Your task to perform on an android device: find photos in the google photos app Image 0: 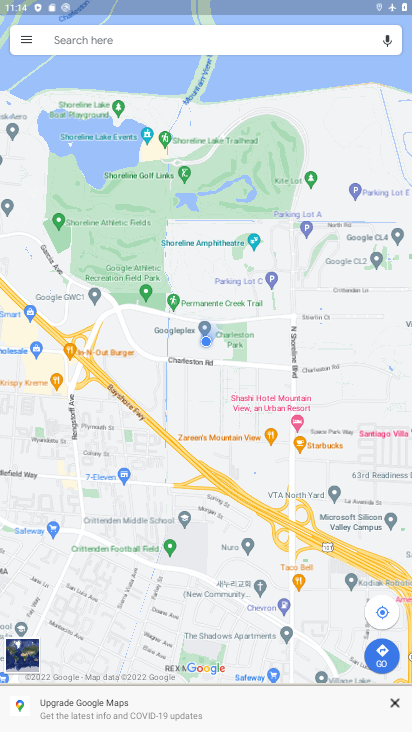
Step 0: press home button
Your task to perform on an android device: find photos in the google photos app Image 1: 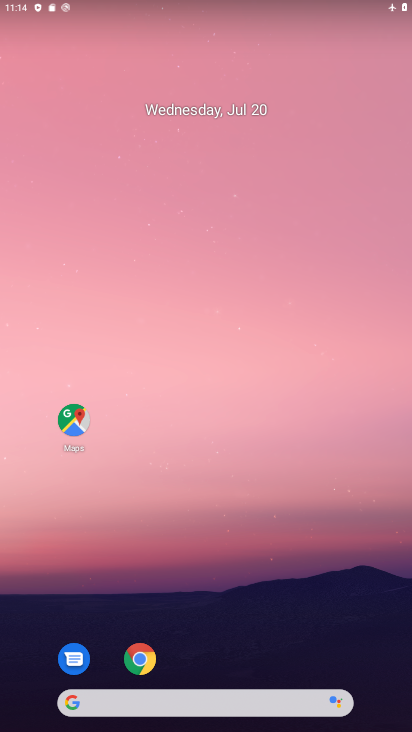
Step 1: drag from (195, 631) to (212, 70)
Your task to perform on an android device: find photos in the google photos app Image 2: 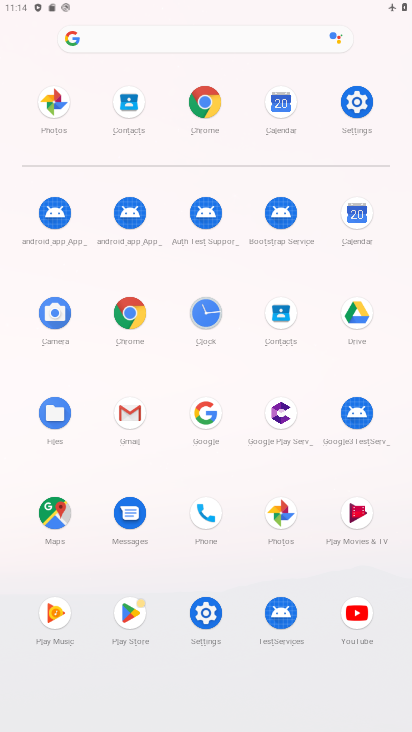
Step 2: click (288, 528)
Your task to perform on an android device: find photos in the google photos app Image 3: 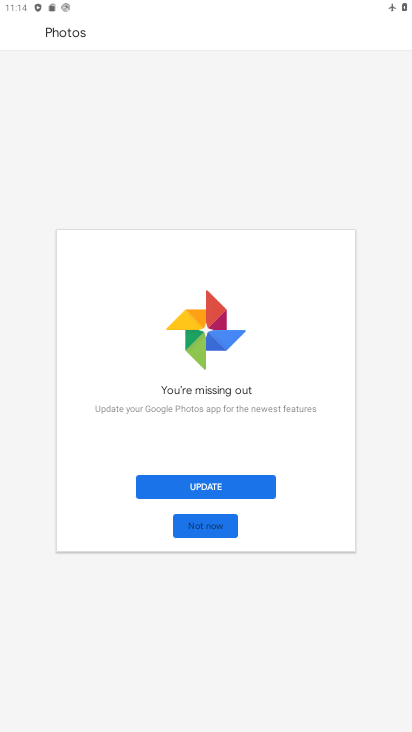
Step 3: click (198, 520)
Your task to perform on an android device: find photos in the google photos app Image 4: 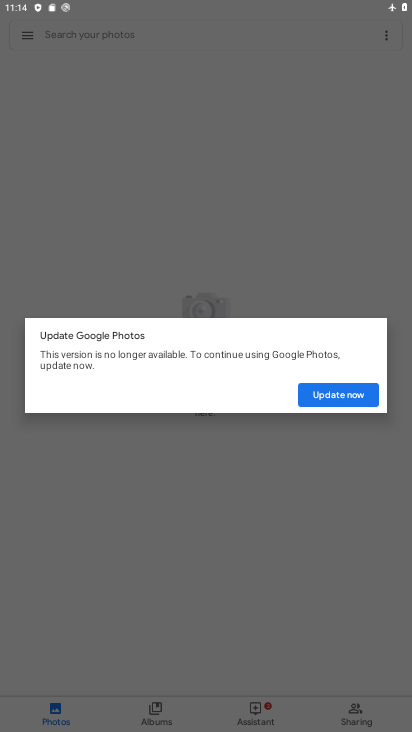
Step 4: click (358, 393)
Your task to perform on an android device: find photos in the google photos app Image 5: 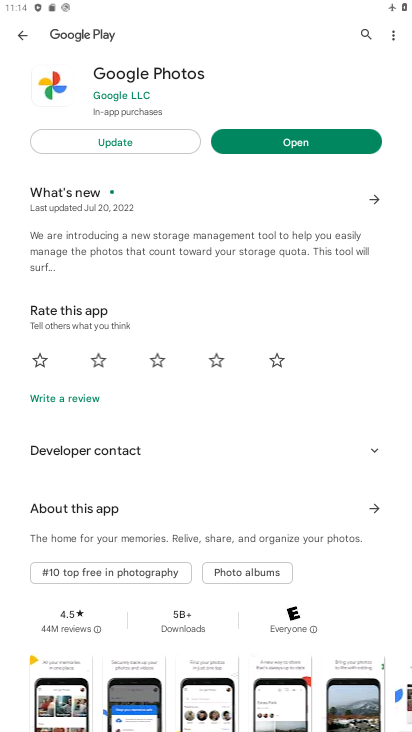
Step 5: click (287, 150)
Your task to perform on an android device: find photos in the google photos app Image 6: 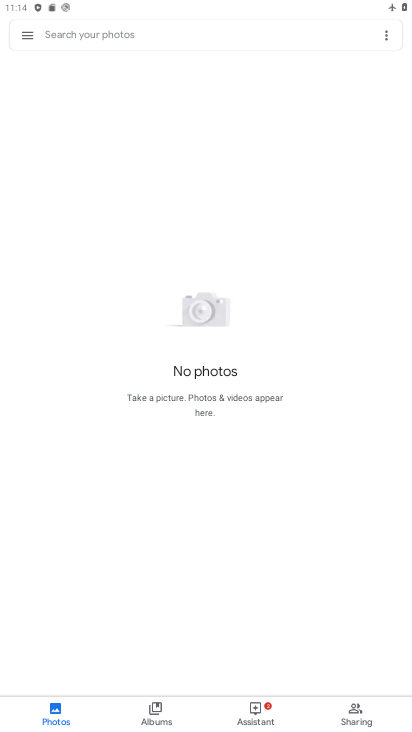
Step 6: click (31, 38)
Your task to perform on an android device: find photos in the google photos app Image 7: 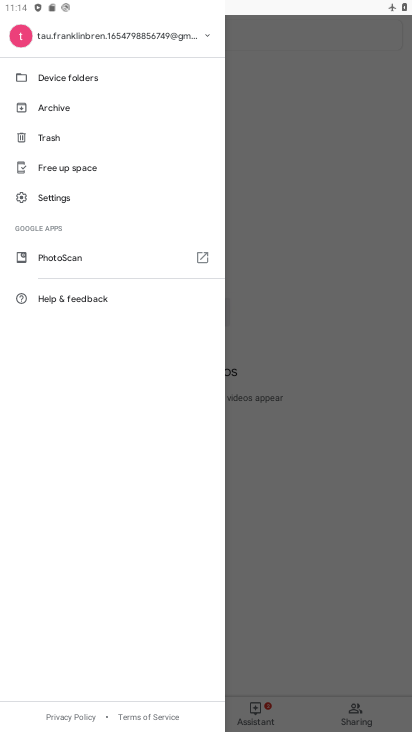
Step 7: click (302, 248)
Your task to perform on an android device: find photos in the google photos app Image 8: 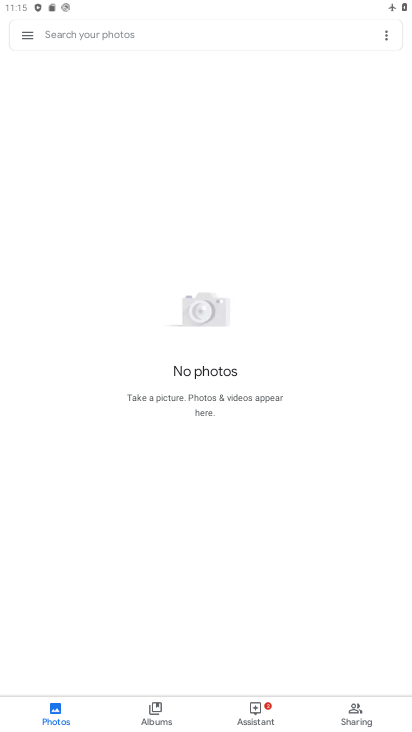
Step 8: task complete